Your task to perform on an android device: change the clock display to show seconds Image 0: 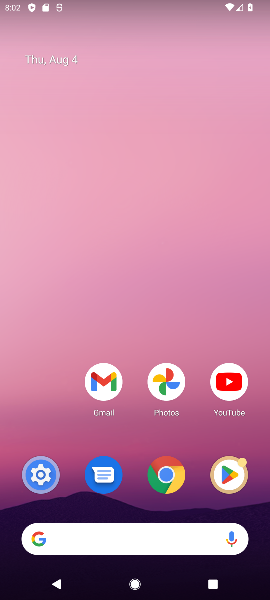
Step 0: drag from (148, 432) to (203, 144)
Your task to perform on an android device: change the clock display to show seconds Image 1: 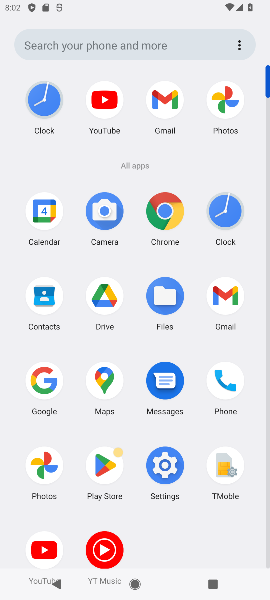
Step 1: click (164, 475)
Your task to perform on an android device: change the clock display to show seconds Image 2: 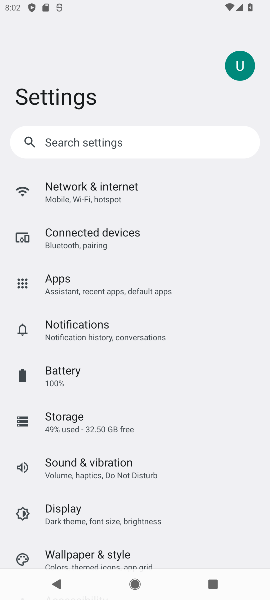
Step 2: drag from (130, 506) to (196, 216)
Your task to perform on an android device: change the clock display to show seconds Image 3: 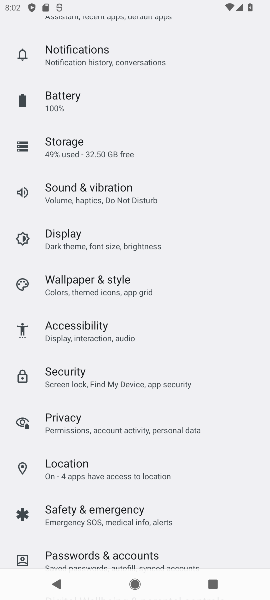
Step 3: drag from (141, 195) to (165, 573)
Your task to perform on an android device: change the clock display to show seconds Image 4: 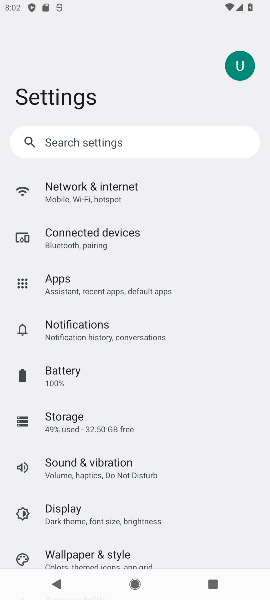
Step 4: press home button
Your task to perform on an android device: change the clock display to show seconds Image 5: 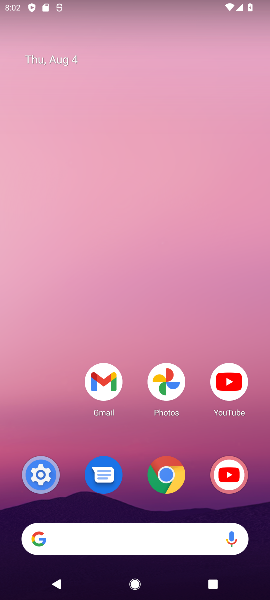
Step 5: drag from (118, 489) to (182, 202)
Your task to perform on an android device: change the clock display to show seconds Image 6: 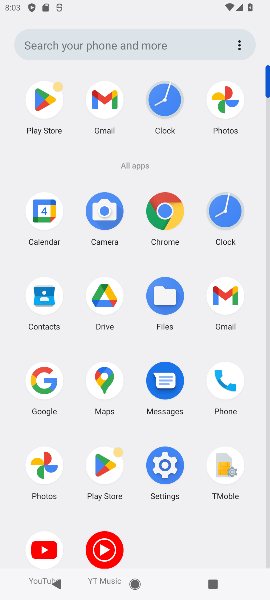
Step 6: drag from (150, 466) to (148, 158)
Your task to perform on an android device: change the clock display to show seconds Image 7: 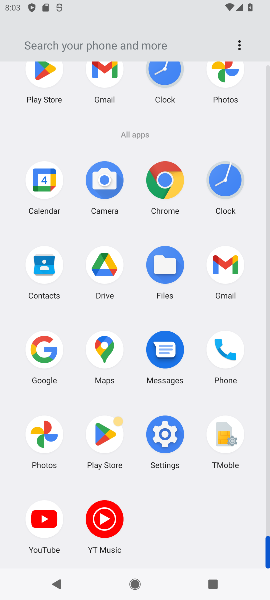
Step 7: drag from (144, 497) to (139, 324)
Your task to perform on an android device: change the clock display to show seconds Image 8: 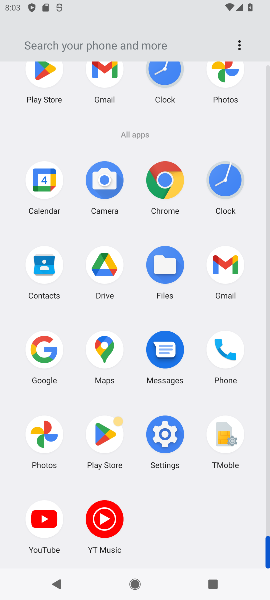
Step 8: drag from (140, 211) to (143, 580)
Your task to perform on an android device: change the clock display to show seconds Image 9: 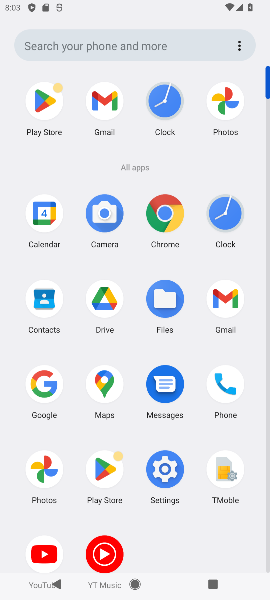
Step 9: drag from (166, 507) to (196, 232)
Your task to perform on an android device: change the clock display to show seconds Image 10: 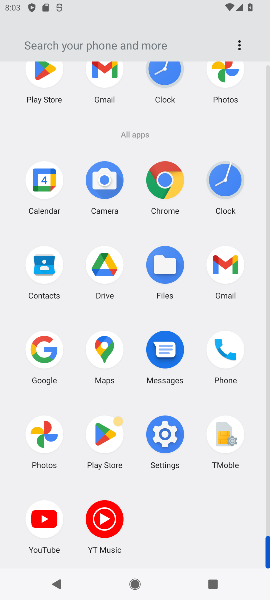
Step 10: drag from (138, 500) to (152, 255)
Your task to perform on an android device: change the clock display to show seconds Image 11: 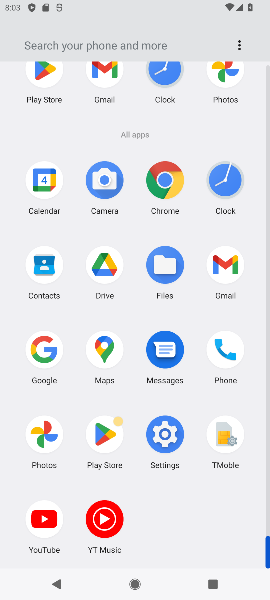
Step 11: drag from (179, 131) to (168, 417)
Your task to perform on an android device: change the clock display to show seconds Image 12: 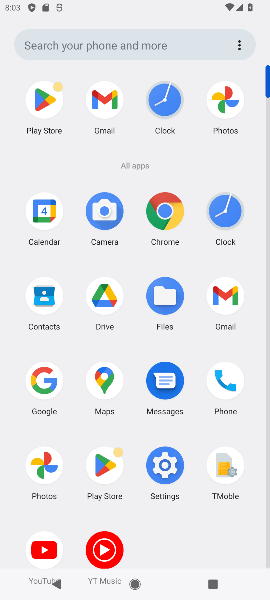
Step 12: drag from (194, 152) to (179, 526)
Your task to perform on an android device: change the clock display to show seconds Image 13: 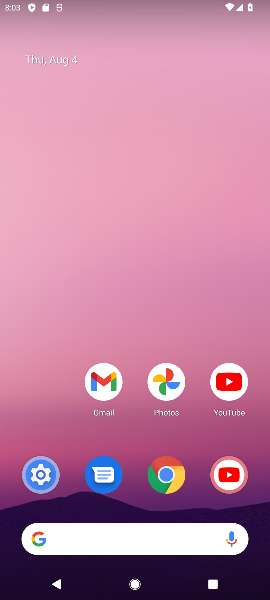
Step 13: drag from (130, 475) to (130, 273)
Your task to perform on an android device: change the clock display to show seconds Image 14: 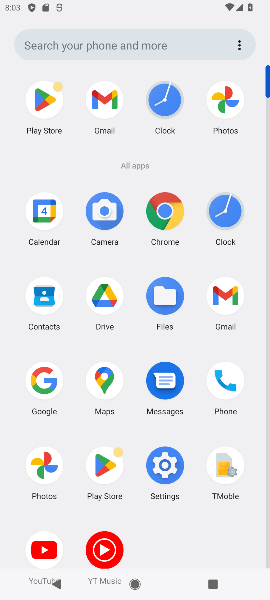
Step 14: click (213, 220)
Your task to perform on an android device: change the clock display to show seconds Image 15: 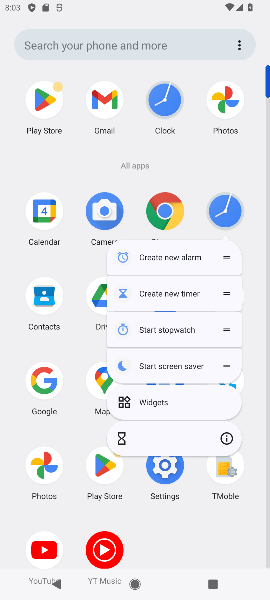
Step 15: click (228, 433)
Your task to perform on an android device: change the clock display to show seconds Image 16: 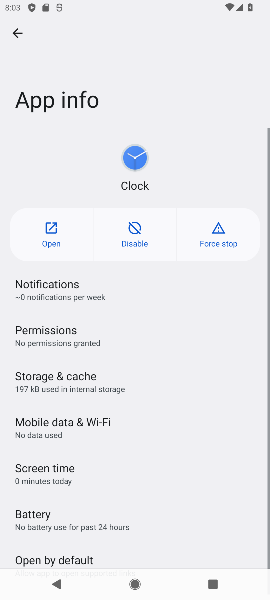
Step 16: click (46, 227)
Your task to perform on an android device: change the clock display to show seconds Image 17: 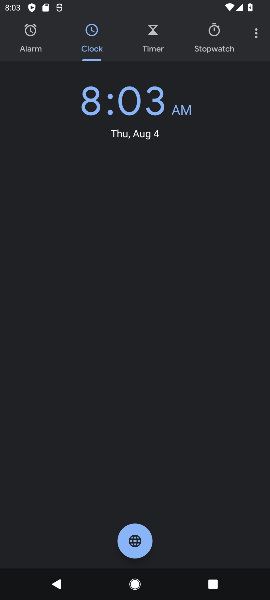
Step 17: drag from (253, 32) to (187, 62)
Your task to perform on an android device: change the clock display to show seconds Image 18: 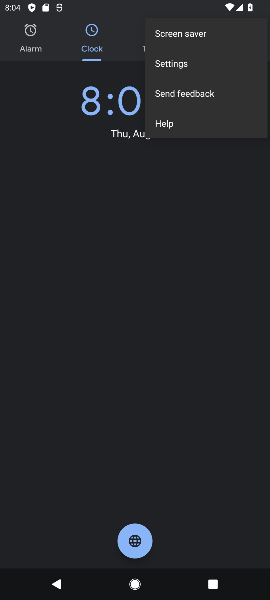
Step 18: click (187, 62)
Your task to perform on an android device: change the clock display to show seconds Image 19: 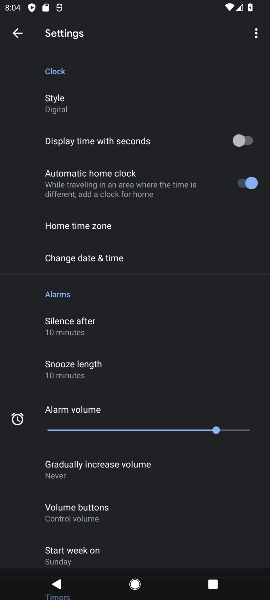
Step 19: click (154, 142)
Your task to perform on an android device: change the clock display to show seconds Image 20: 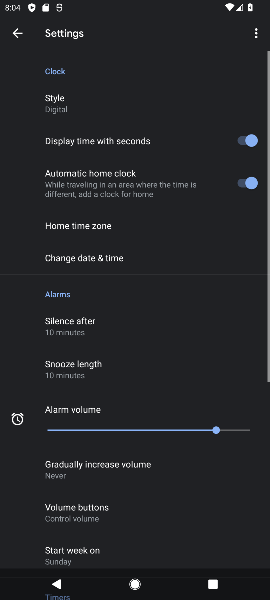
Step 20: task complete